Your task to perform on an android device: search for starred emails in the gmail app Image 0: 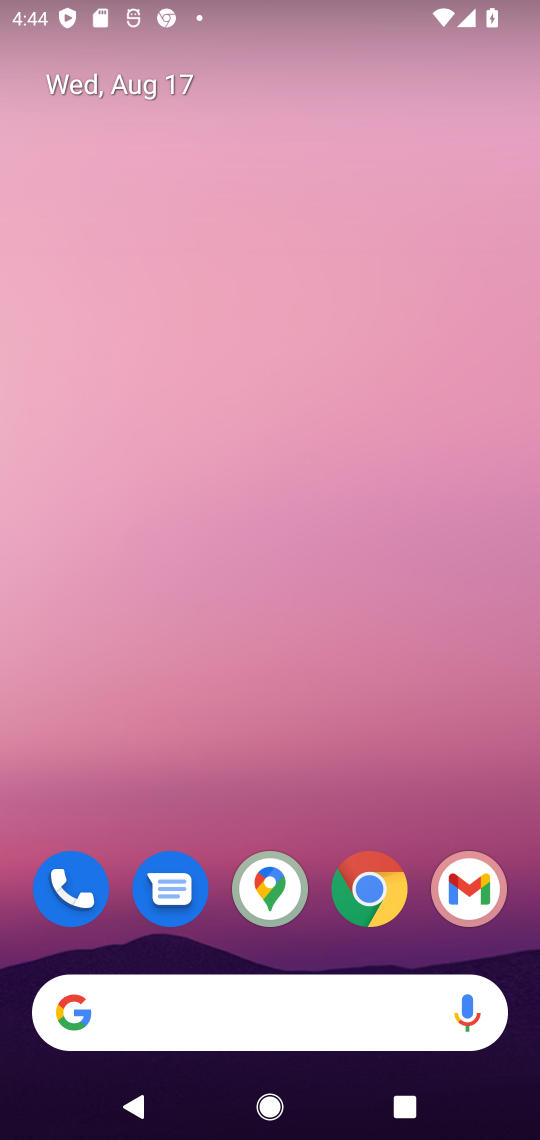
Step 0: click (474, 887)
Your task to perform on an android device: search for starred emails in the gmail app Image 1: 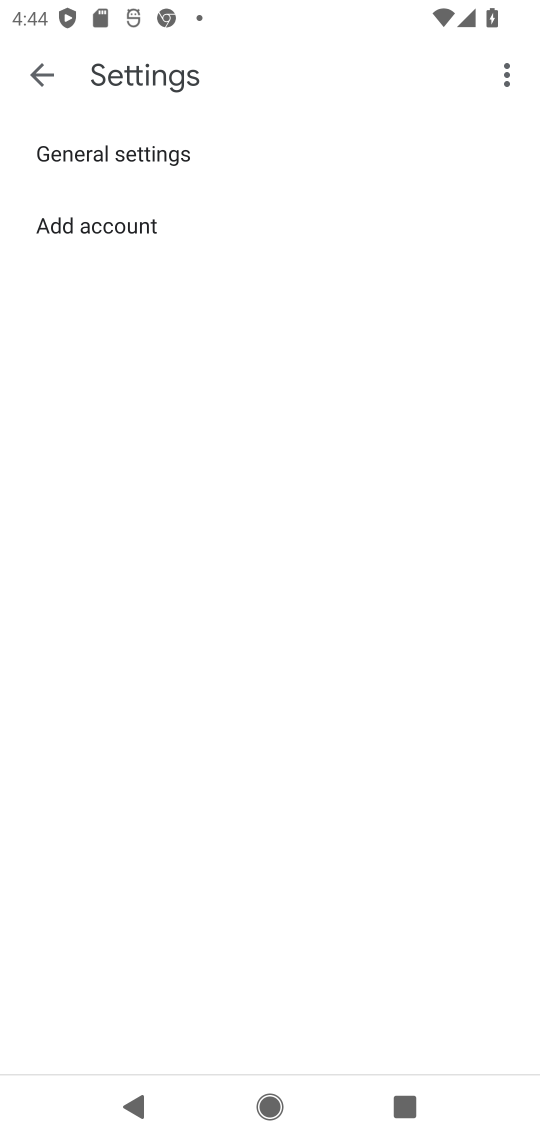
Step 1: click (38, 74)
Your task to perform on an android device: search for starred emails in the gmail app Image 2: 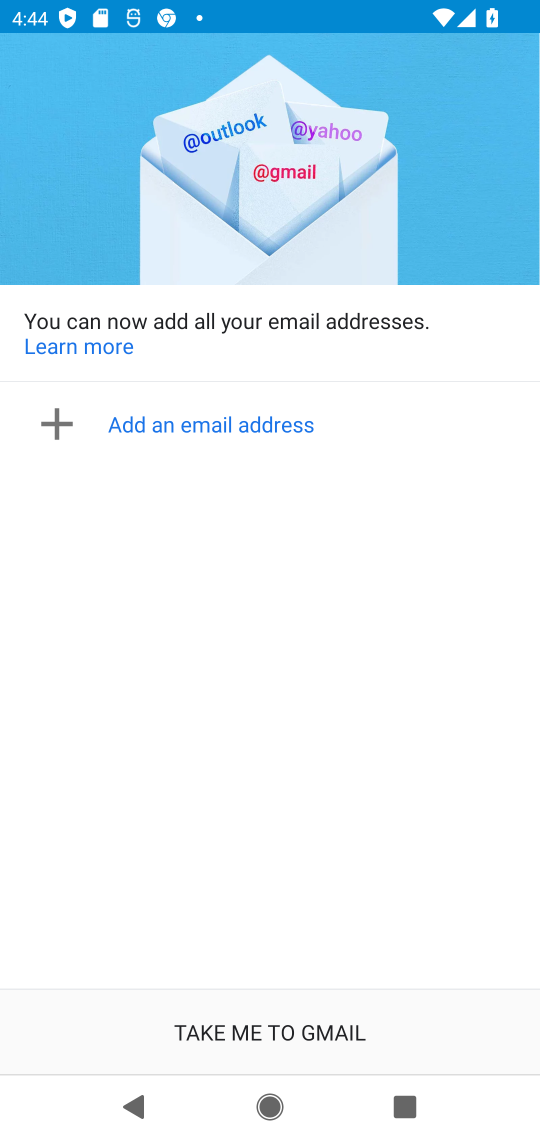
Step 2: click (284, 1033)
Your task to perform on an android device: search for starred emails in the gmail app Image 3: 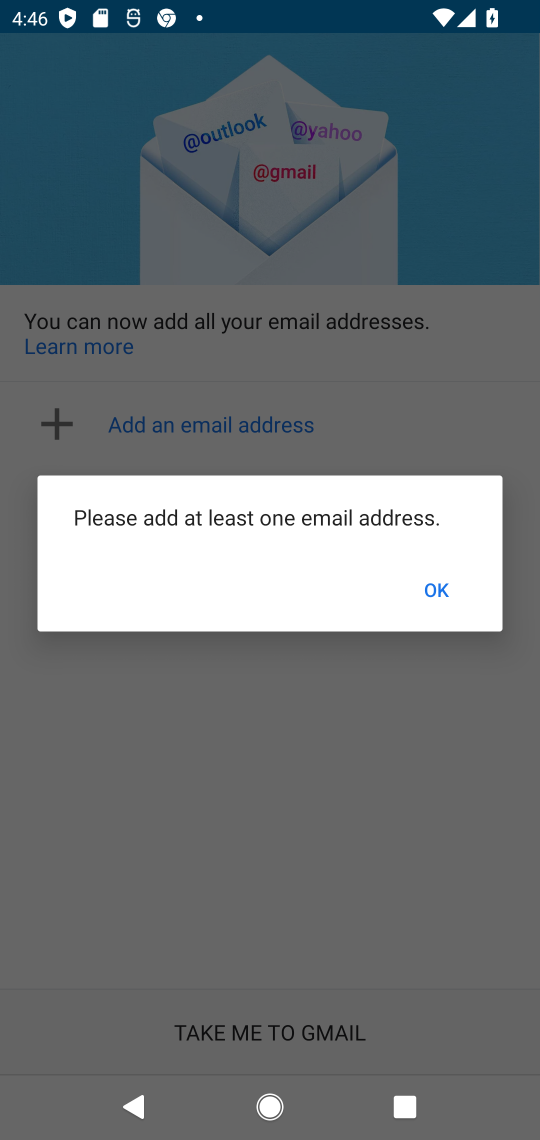
Step 3: task complete